Your task to perform on an android device: turn off data saver in the chrome app Image 0: 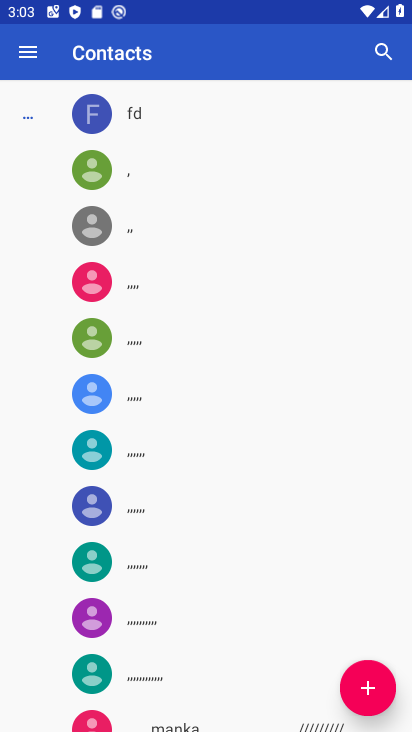
Step 0: press home button
Your task to perform on an android device: turn off data saver in the chrome app Image 1: 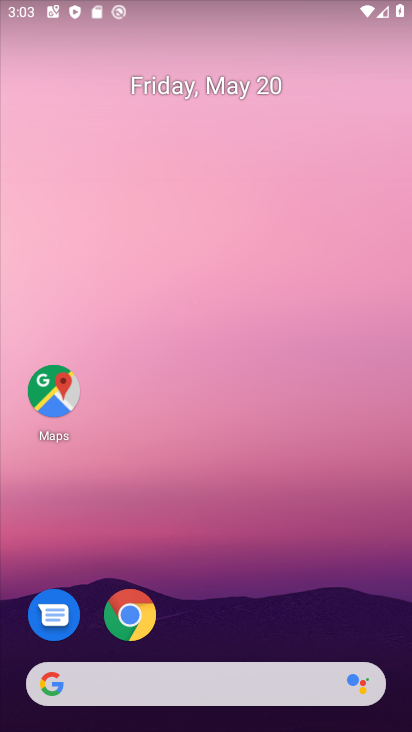
Step 1: drag from (290, 617) to (253, 286)
Your task to perform on an android device: turn off data saver in the chrome app Image 2: 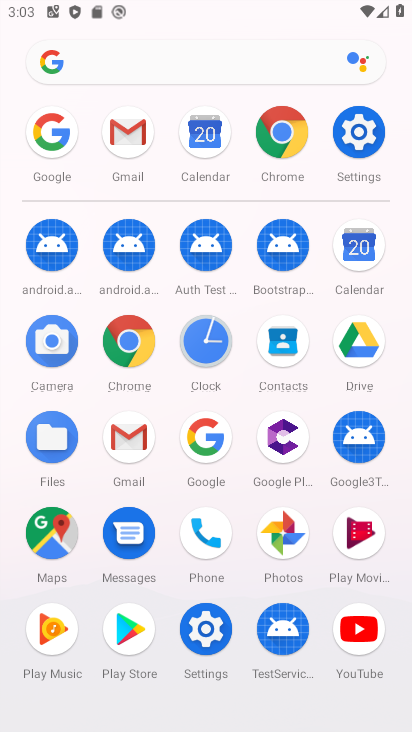
Step 2: click (274, 126)
Your task to perform on an android device: turn off data saver in the chrome app Image 3: 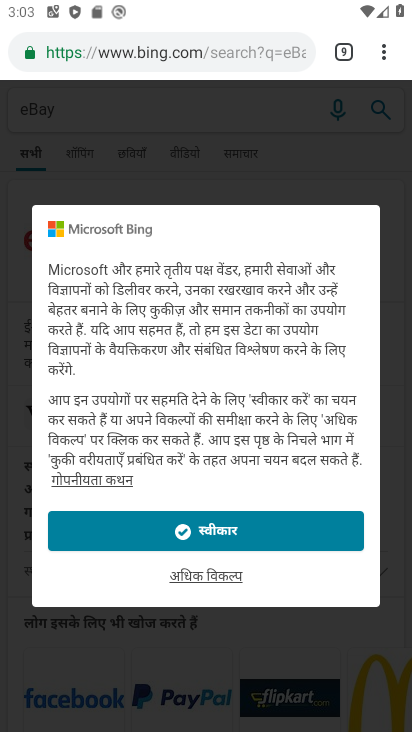
Step 3: click (379, 49)
Your task to perform on an android device: turn off data saver in the chrome app Image 4: 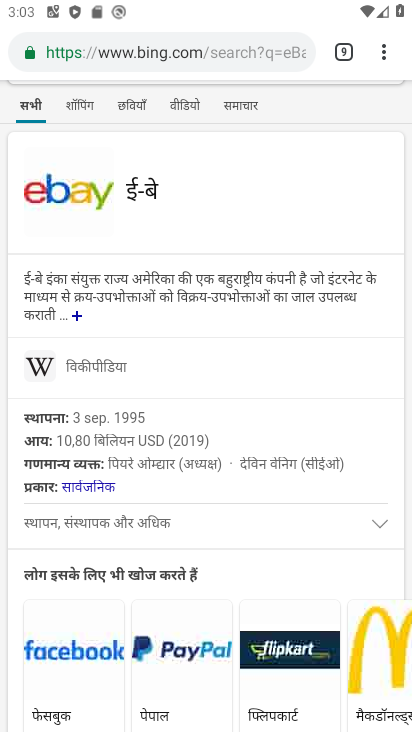
Step 4: click (379, 49)
Your task to perform on an android device: turn off data saver in the chrome app Image 5: 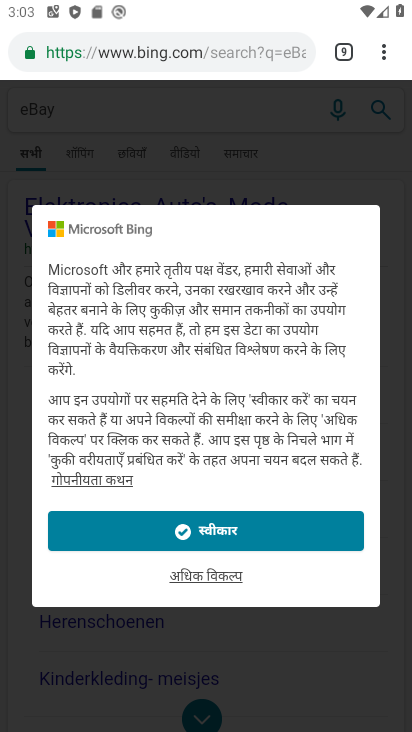
Step 5: click (388, 53)
Your task to perform on an android device: turn off data saver in the chrome app Image 6: 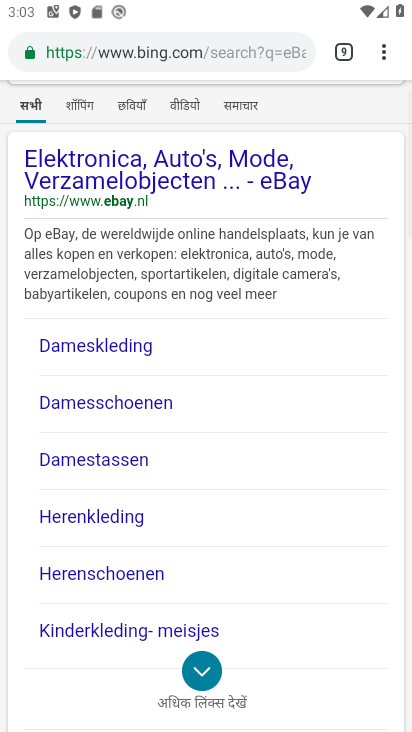
Step 6: click (363, 45)
Your task to perform on an android device: turn off data saver in the chrome app Image 7: 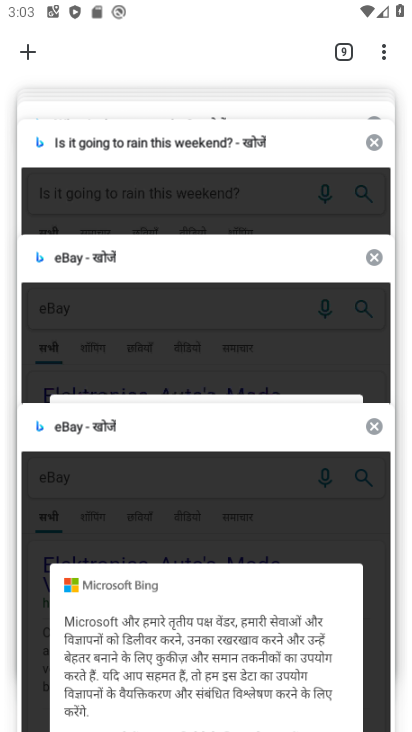
Step 7: click (30, 49)
Your task to perform on an android device: turn off data saver in the chrome app Image 8: 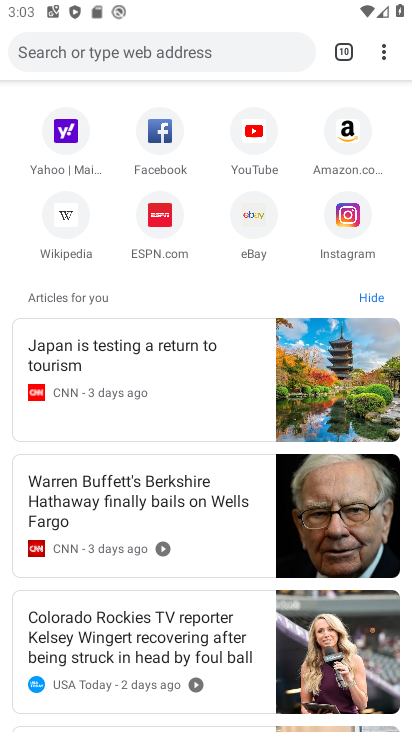
Step 8: click (383, 48)
Your task to perform on an android device: turn off data saver in the chrome app Image 9: 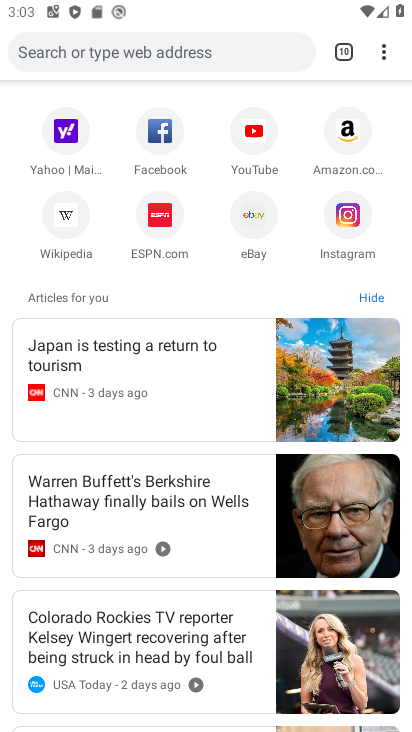
Step 9: click (383, 48)
Your task to perform on an android device: turn off data saver in the chrome app Image 10: 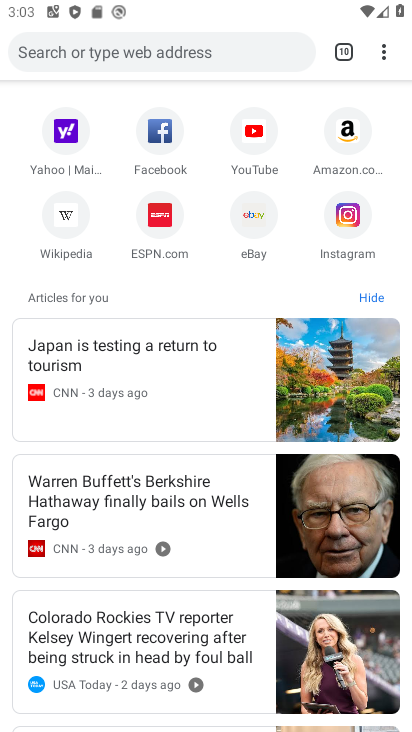
Step 10: click (384, 47)
Your task to perform on an android device: turn off data saver in the chrome app Image 11: 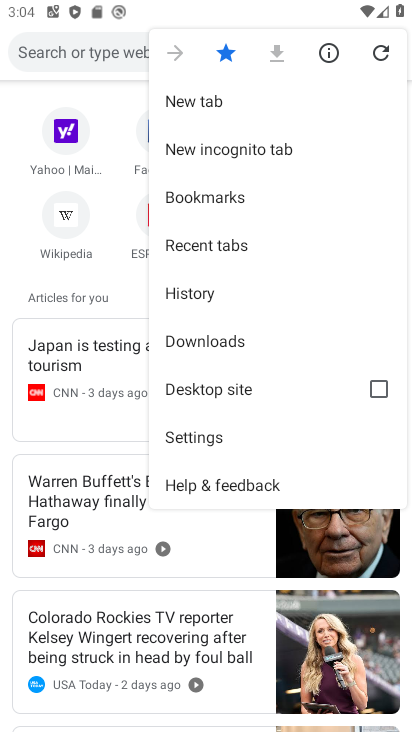
Step 11: click (230, 429)
Your task to perform on an android device: turn off data saver in the chrome app Image 12: 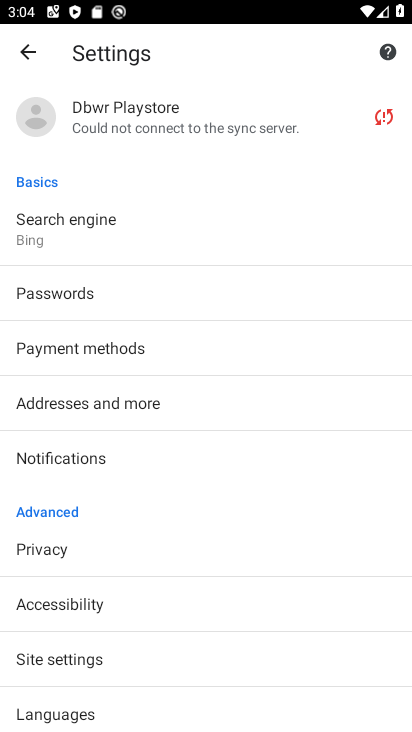
Step 12: drag from (217, 594) to (208, 281)
Your task to perform on an android device: turn off data saver in the chrome app Image 13: 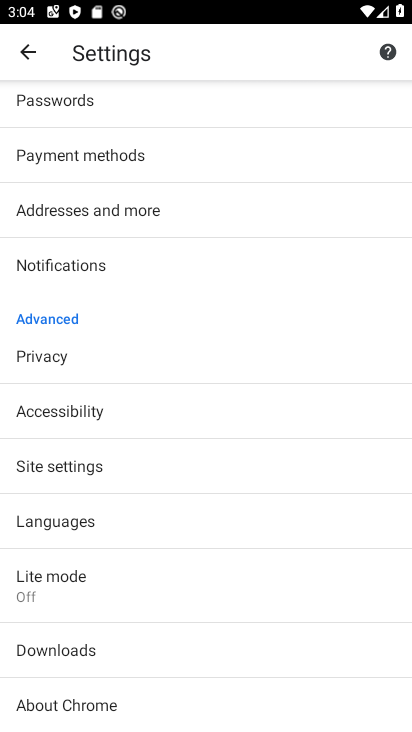
Step 13: click (73, 577)
Your task to perform on an android device: turn off data saver in the chrome app Image 14: 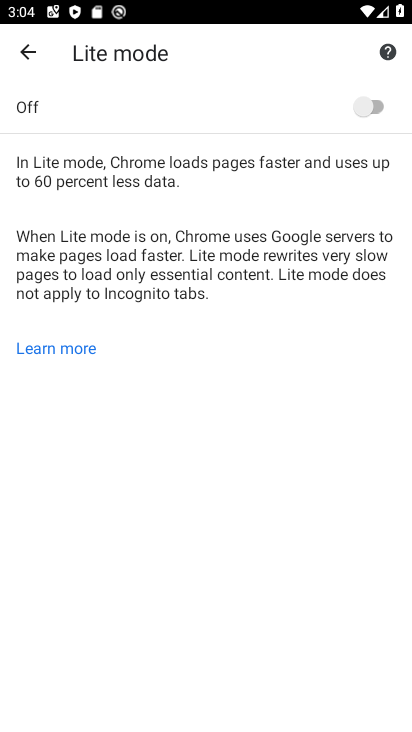
Step 14: task complete